Your task to perform on an android device: Open eBay Image 0: 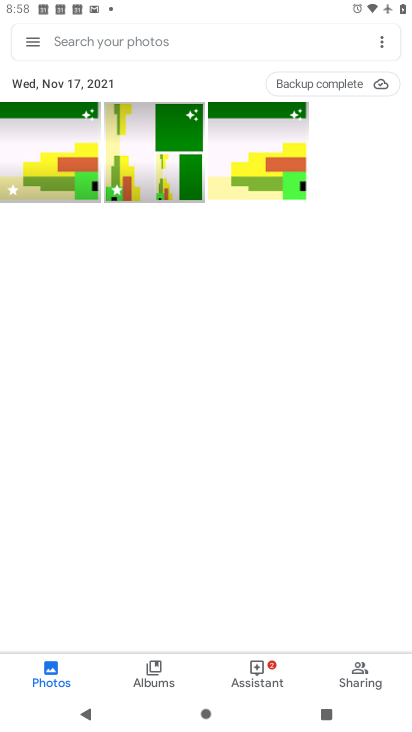
Step 0: press home button
Your task to perform on an android device: Open eBay Image 1: 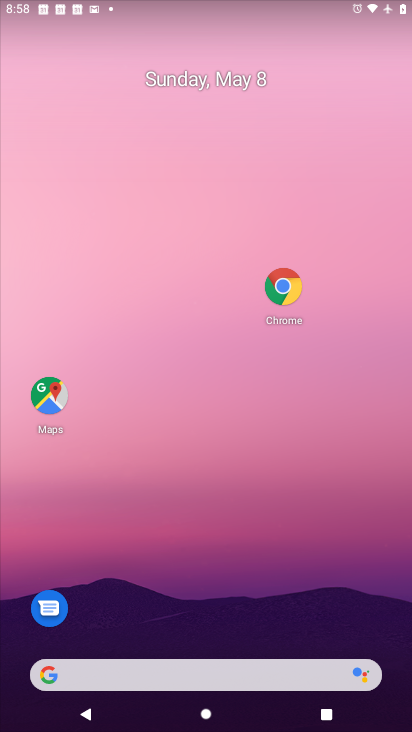
Step 1: drag from (149, 671) to (313, 112)
Your task to perform on an android device: Open eBay Image 2: 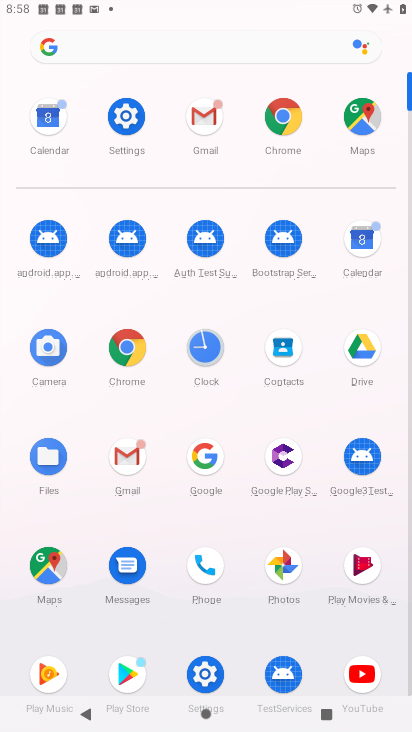
Step 2: click (283, 119)
Your task to perform on an android device: Open eBay Image 3: 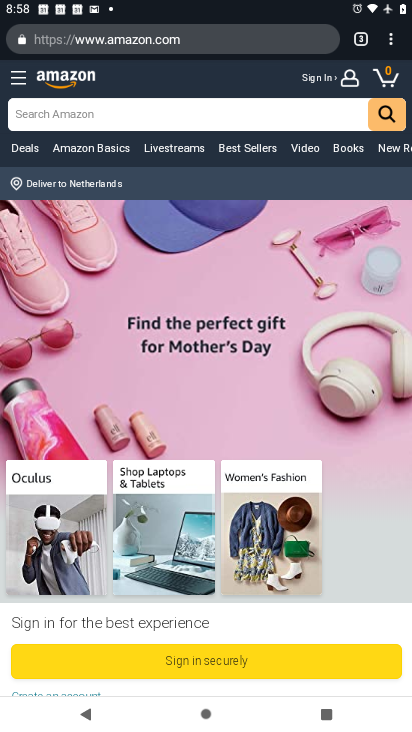
Step 3: drag from (387, 44) to (313, 86)
Your task to perform on an android device: Open eBay Image 4: 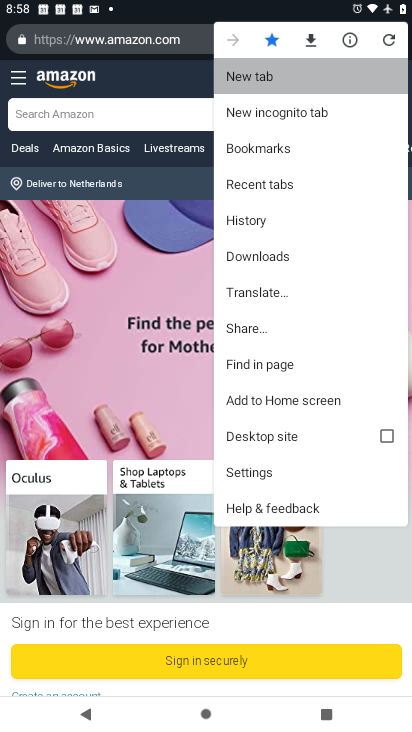
Step 4: click (313, 86)
Your task to perform on an android device: Open eBay Image 5: 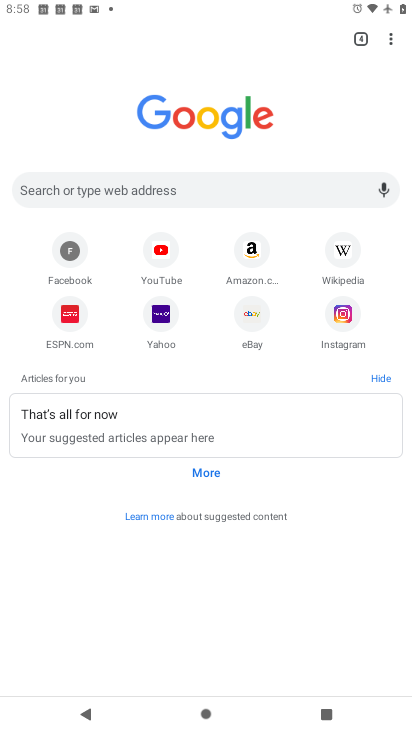
Step 5: click (250, 319)
Your task to perform on an android device: Open eBay Image 6: 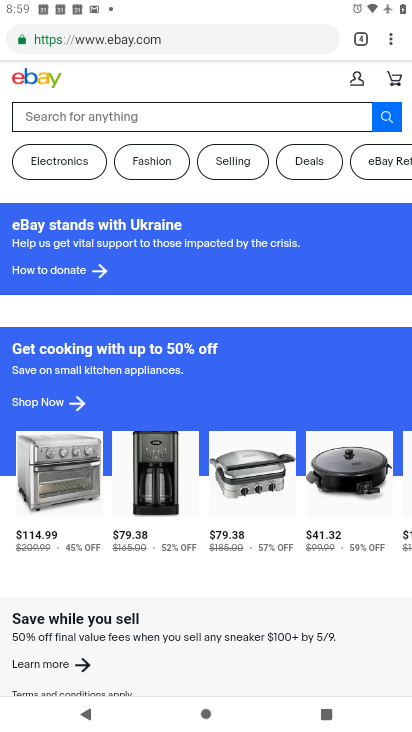
Step 6: task complete